Your task to perform on an android device: read, delete, or share a saved page in the chrome app Image 0: 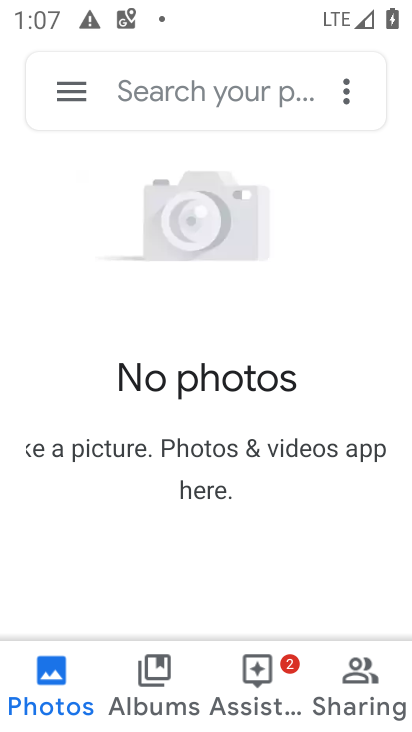
Step 0: press home button
Your task to perform on an android device: read, delete, or share a saved page in the chrome app Image 1: 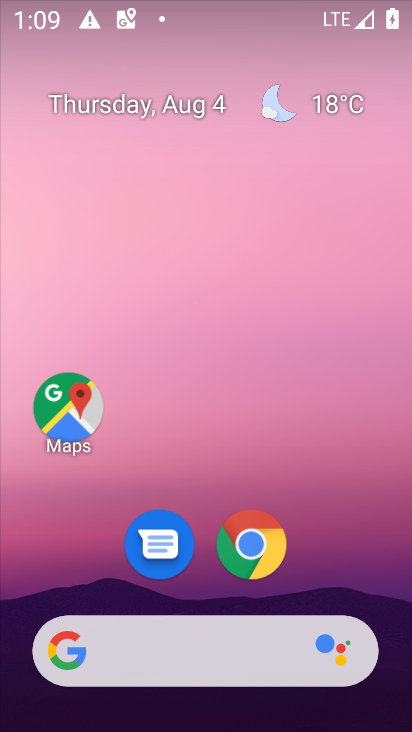
Step 1: click (254, 549)
Your task to perform on an android device: read, delete, or share a saved page in the chrome app Image 2: 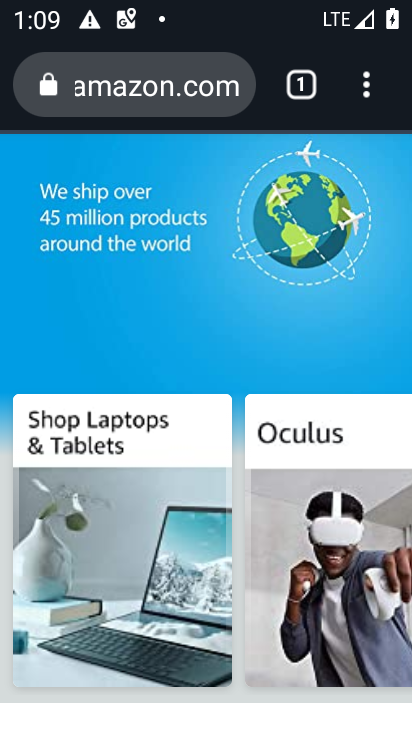
Step 2: click (367, 78)
Your task to perform on an android device: read, delete, or share a saved page in the chrome app Image 3: 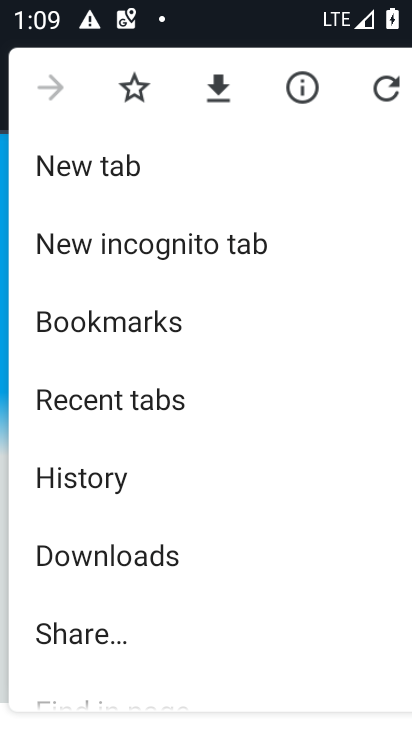
Step 3: drag from (236, 375) to (224, 253)
Your task to perform on an android device: read, delete, or share a saved page in the chrome app Image 4: 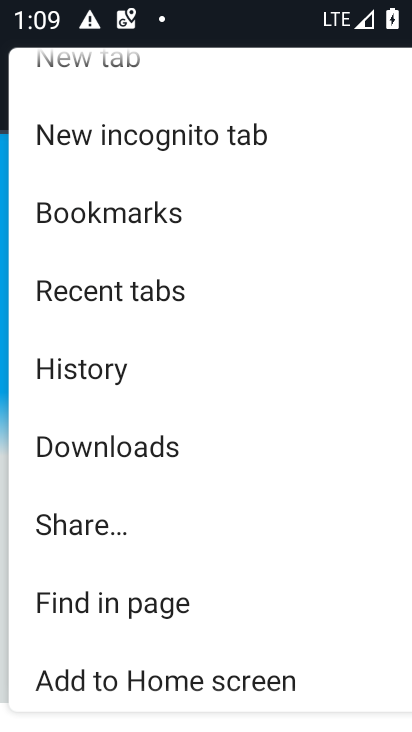
Step 4: click (83, 447)
Your task to perform on an android device: read, delete, or share a saved page in the chrome app Image 5: 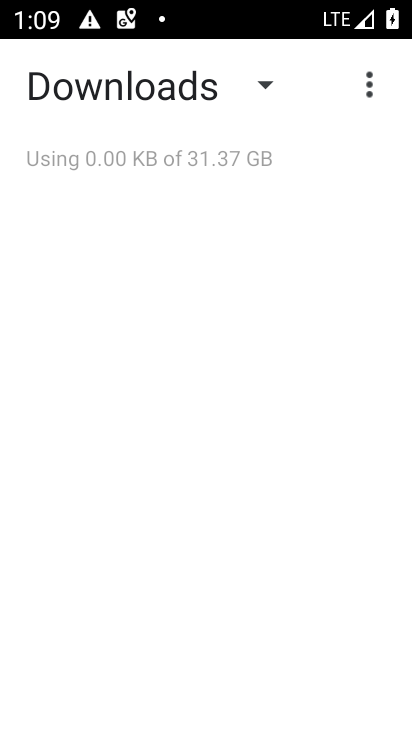
Step 5: task complete